Your task to perform on an android device: delete the emails in spam in the gmail app Image 0: 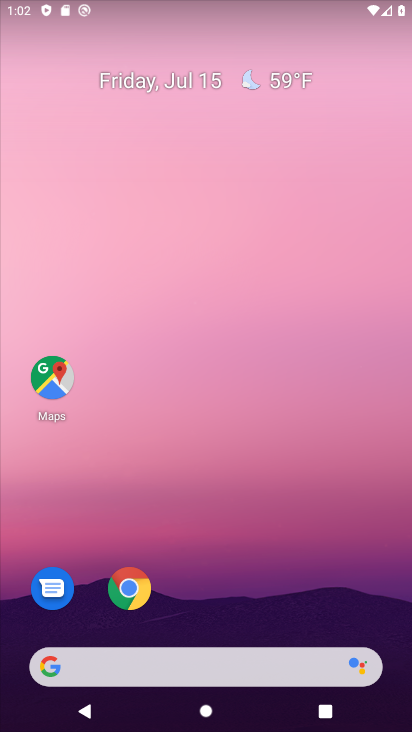
Step 0: drag from (165, 630) to (261, 157)
Your task to perform on an android device: delete the emails in spam in the gmail app Image 1: 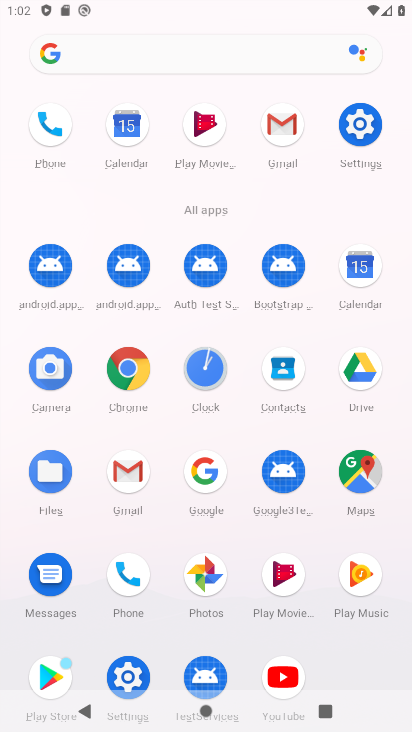
Step 1: click (280, 124)
Your task to perform on an android device: delete the emails in spam in the gmail app Image 2: 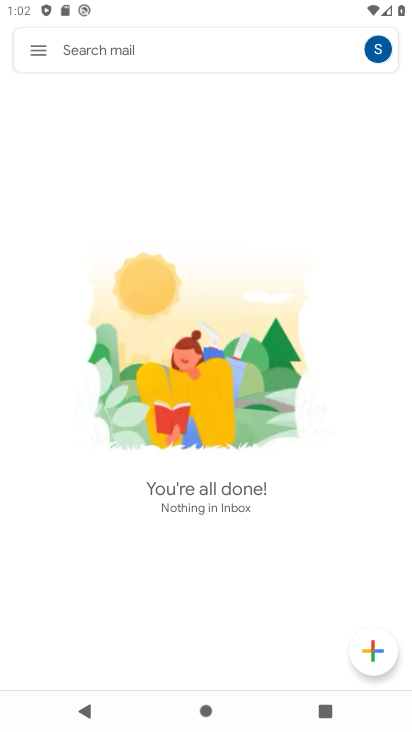
Step 2: click (36, 52)
Your task to perform on an android device: delete the emails in spam in the gmail app Image 3: 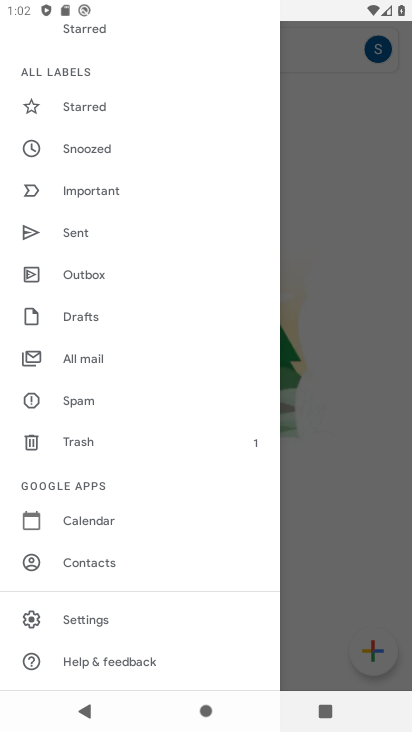
Step 3: click (79, 405)
Your task to perform on an android device: delete the emails in spam in the gmail app Image 4: 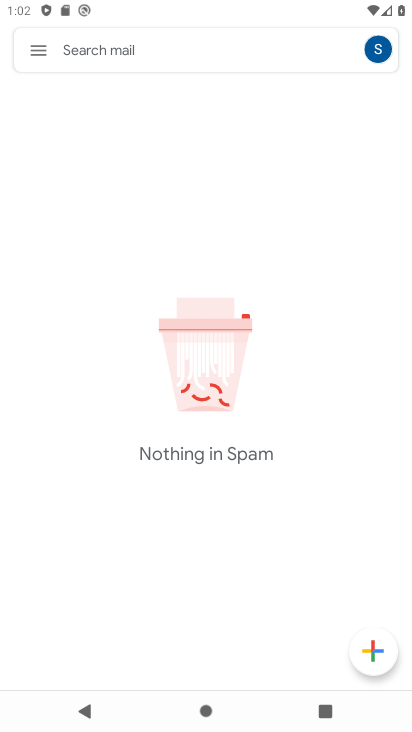
Step 4: task complete